Your task to perform on an android device: See recent photos Image 0: 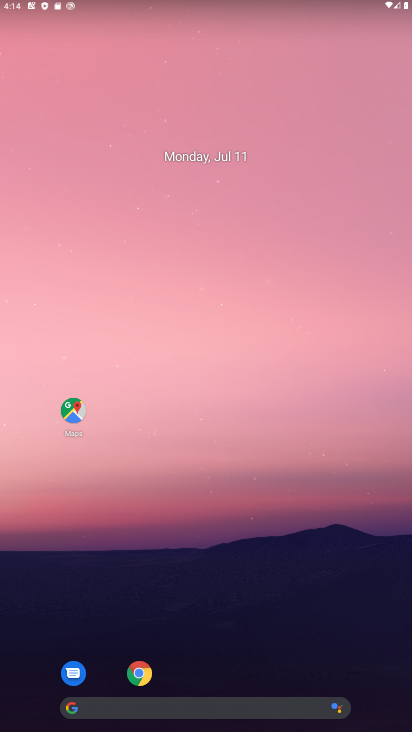
Step 0: drag from (226, 659) to (206, 80)
Your task to perform on an android device: See recent photos Image 1: 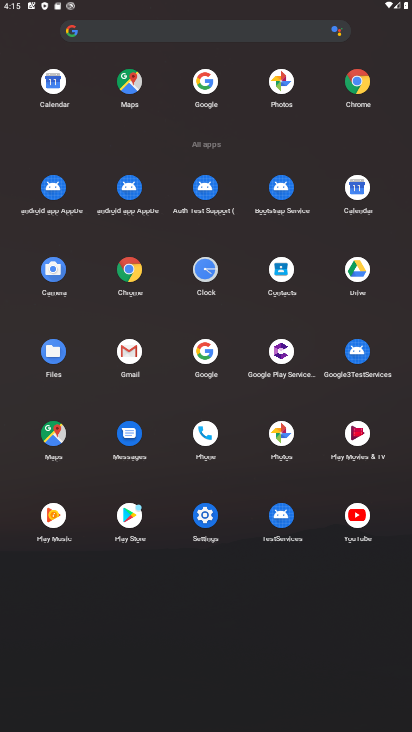
Step 1: click (285, 79)
Your task to perform on an android device: See recent photos Image 2: 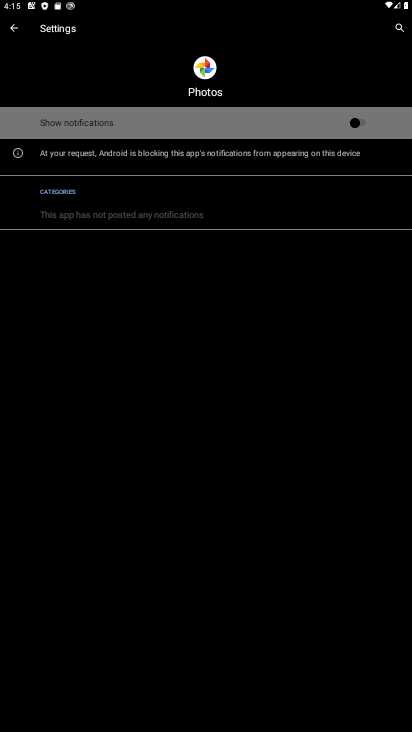
Step 2: press back button
Your task to perform on an android device: See recent photos Image 3: 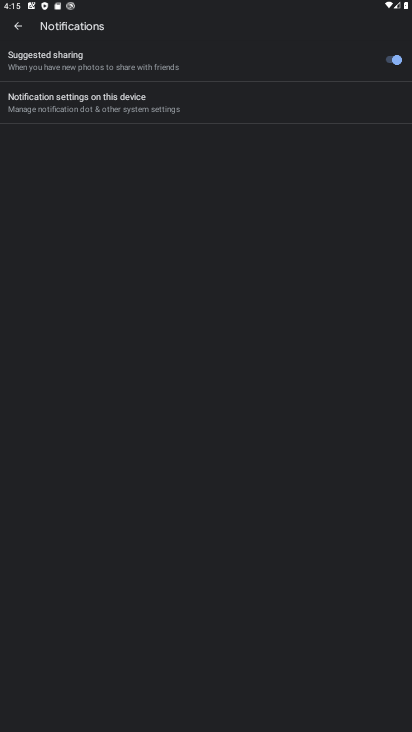
Step 3: press back button
Your task to perform on an android device: See recent photos Image 4: 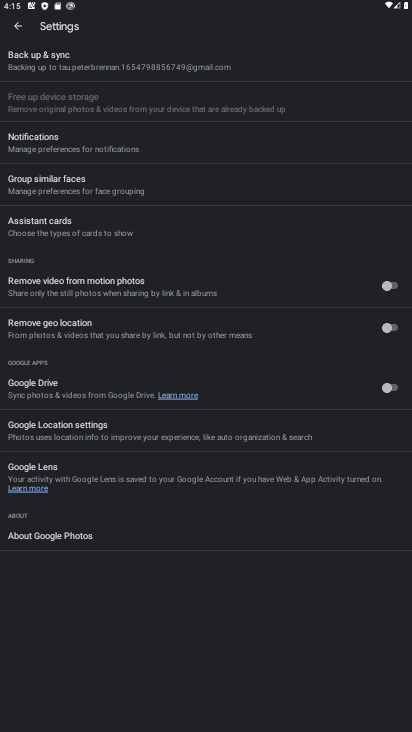
Step 4: press back button
Your task to perform on an android device: See recent photos Image 5: 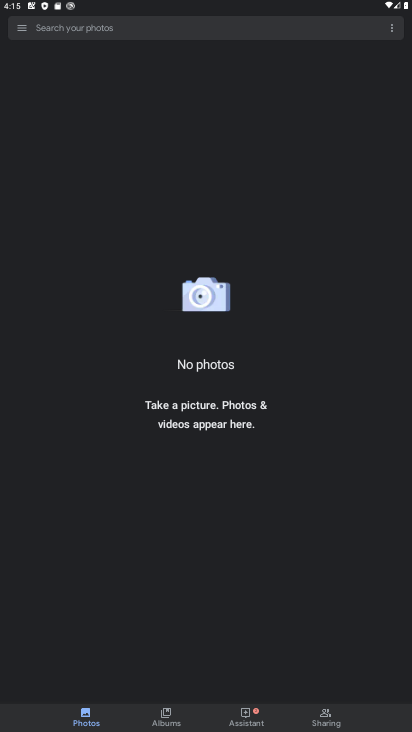
Step 5: click (26, 39)
Your task to perform on an android device: See recent photos Image 6: 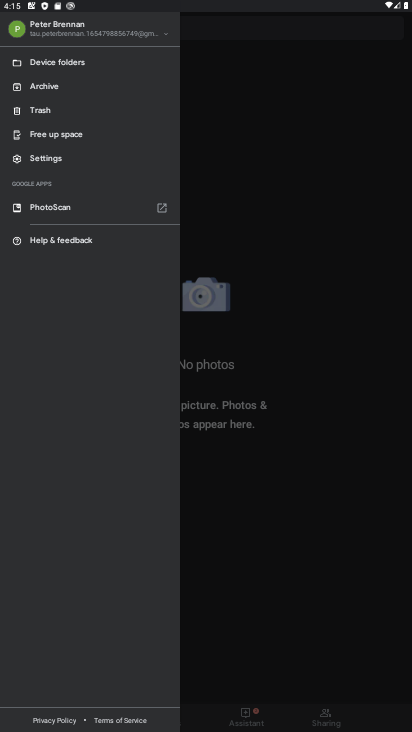
Step 6: click (224, 561)
Your task to perform on an android device: See recent photos Image 7: 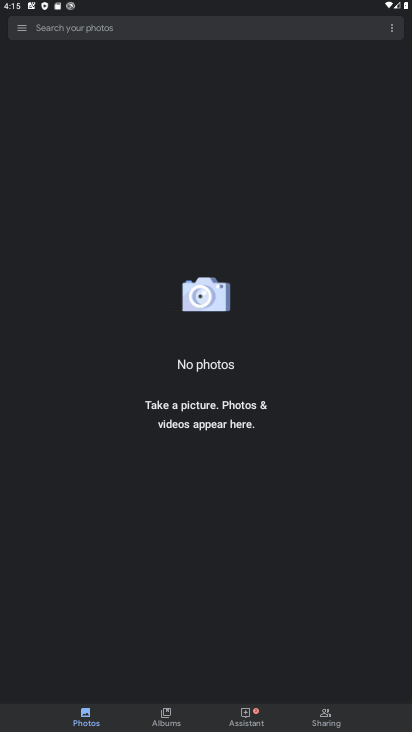
Step 7: click (166, 714)
Your task to perform on an android device: See recent photos Image 8: 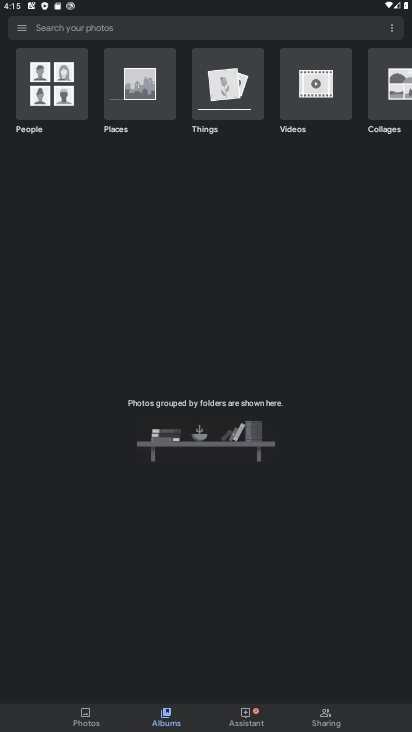
Step 8: task complete